Your task to perform on an android device: check battery use Image 0: 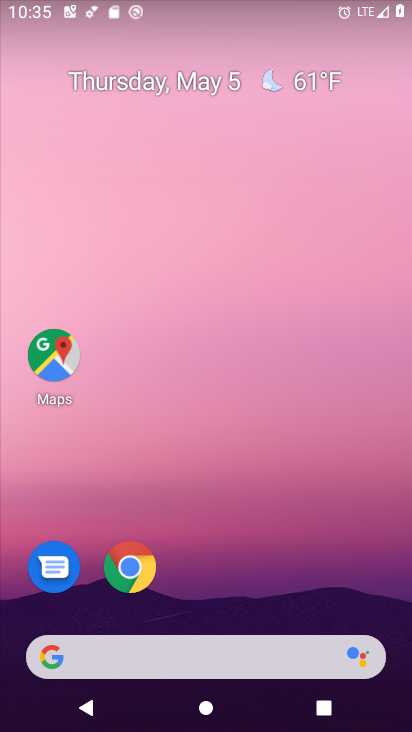
Step 0: drag from (262, 602) to (297, 161)
Your task to perform on an android device: check battery use Image 1: 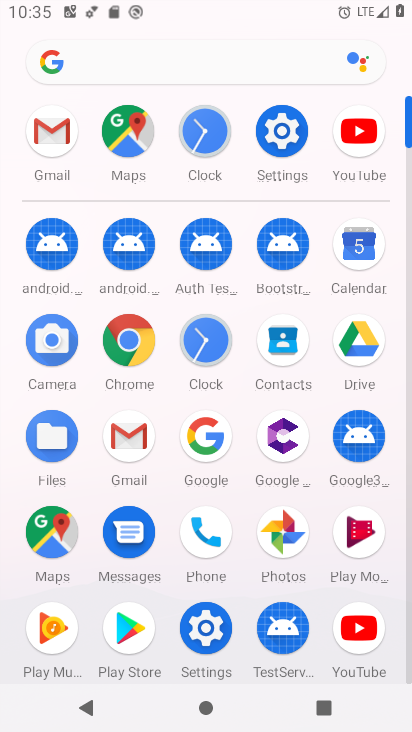
Step 1: click (282, 122)
Your task to perform on an android device: check battery use Image 2: 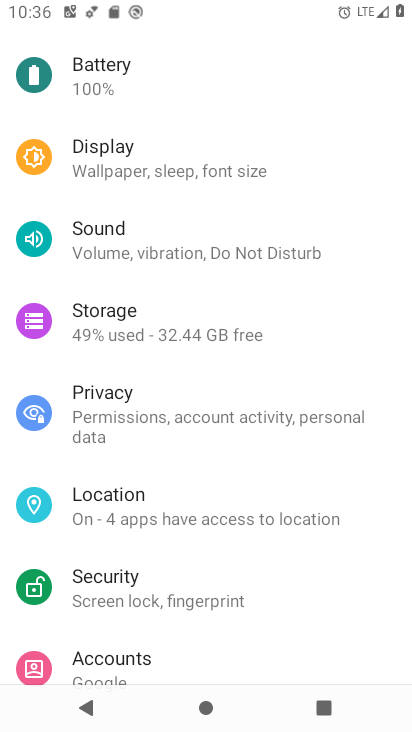
Step 2: click (189, 78)
Your task to perform on an android device: check battery use Image 3: 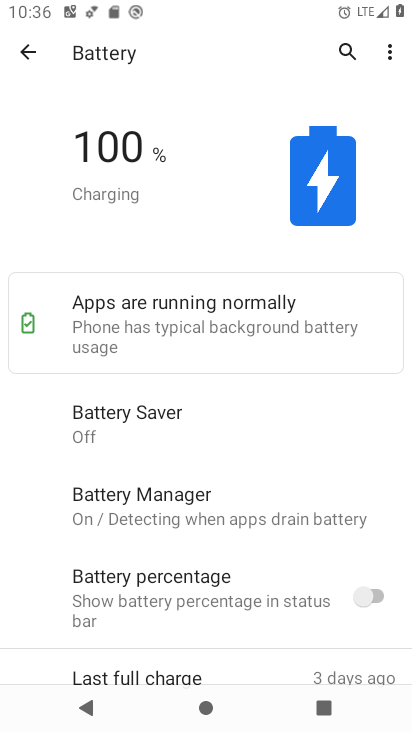
Step 3: click (392, 51)
Your task to perform on an android device: check battery use Image 4: 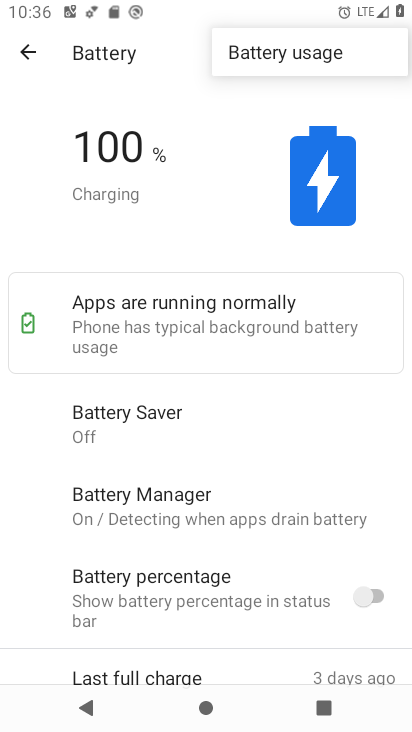
Step 4: click (327, 65)
Your task to perform on an android device: check battery use Image 5: 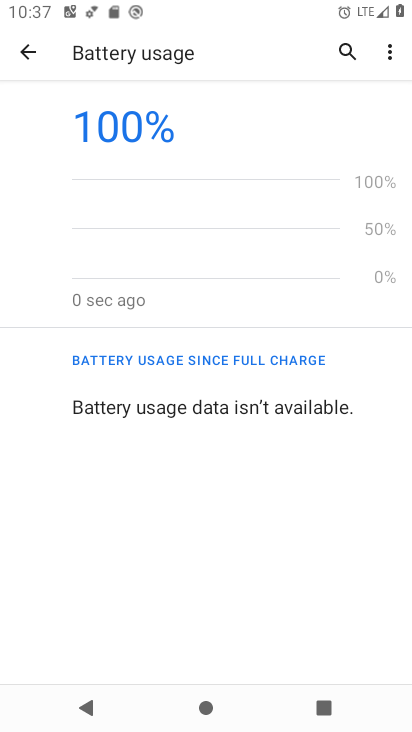
Step 5: task complete